Your task to perform on an android device: Open the calendar app, open the side menu, and click the "Day" option Image 0: 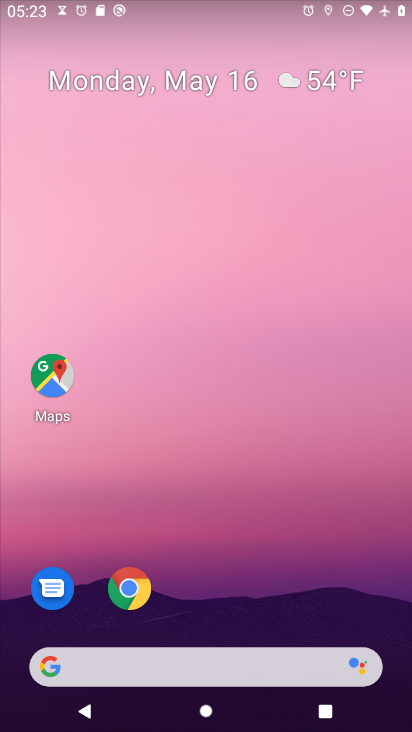
Step 0: drag from (215, 459) to (221, 61)
Your task to perform on an android device: Open the calendar app, open the side menu, and click the "Day" option Image 1: 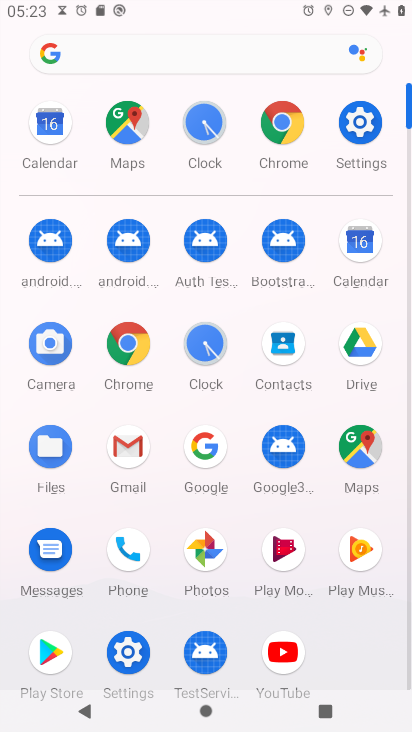
Step 1: drag from (10, 568) to (22, 263)
Your task to perform on an android device: Open the calendar app, open the side menu, and click the "Day" option Image 2: 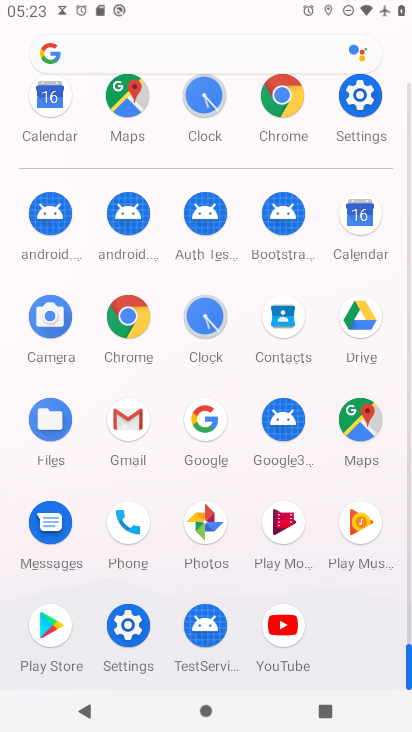
Step 2: click (360, 209)
Your task to perform on an android device: Open the calendar app, open the side menu, and click the "Day" option Image 3: 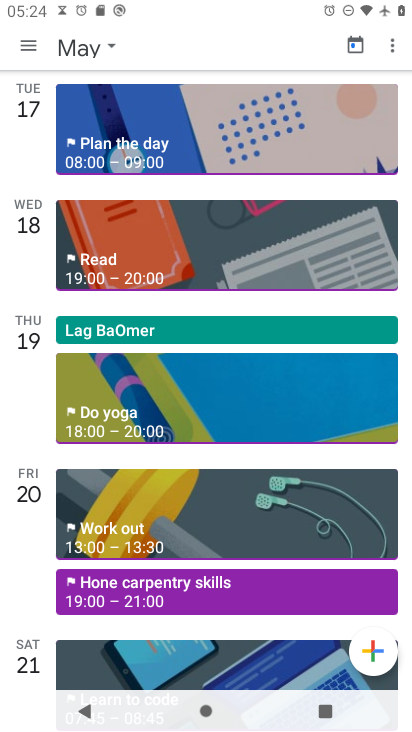
Step 3: click (85, 45)
Your task to perform on an android device: Open the calendar app, open the side menu, and click the "Day" option Image 4: 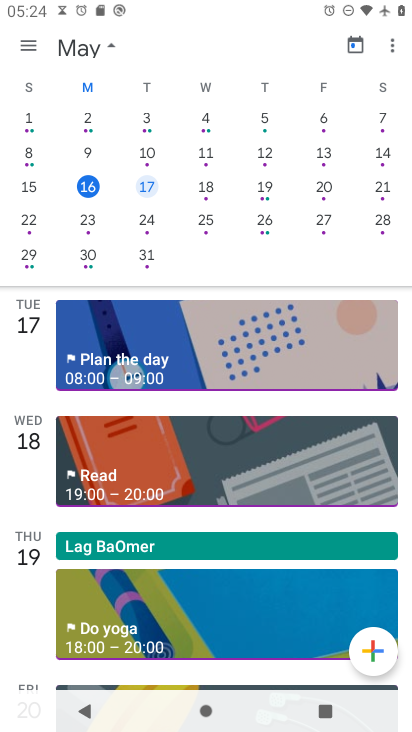
Step 4: drag from (356, 170) to (7, 177)
Your task to perform on an android device: Open the calendar app, open the side menu, and click the "Day" option Image 5: 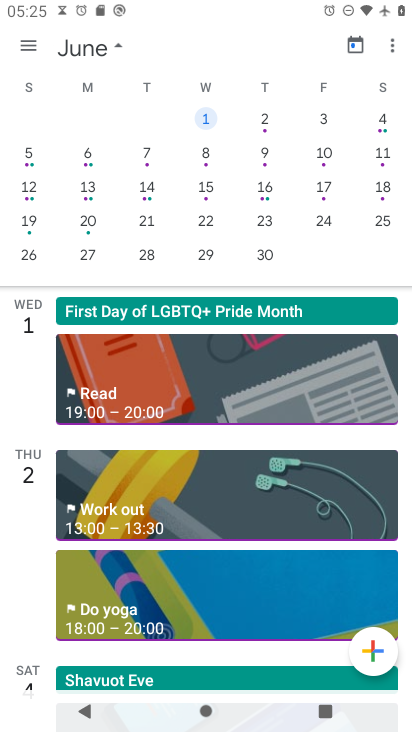
Step 5: click (35, 51)
Your task to perform on an android device: Open the calendar app, open the side menu, and click the "Day" option Image 6: 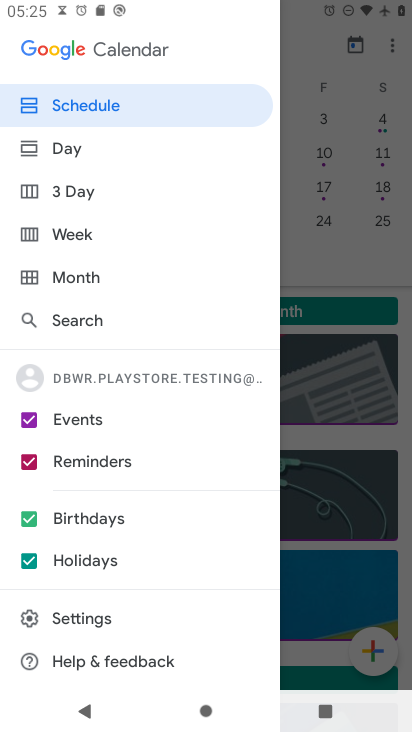
Step 6: click (83, 136)
Your task to perform on an android device: Open the calendar app, open the side menu, and click the "Day" option Image 7: 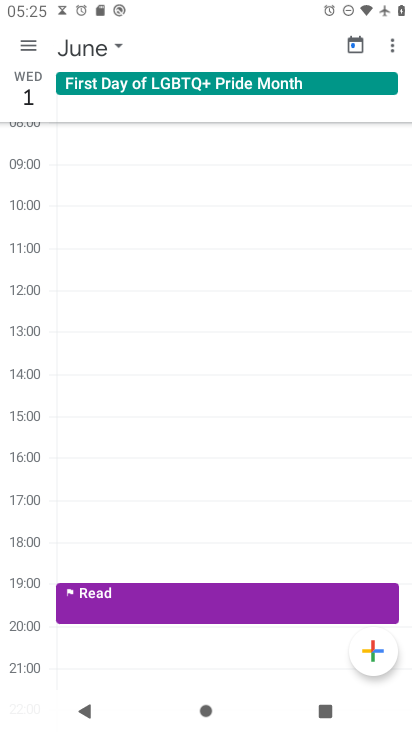
Step 7: task complete